Your task to perform on an android device: What is the news today? Image 0: 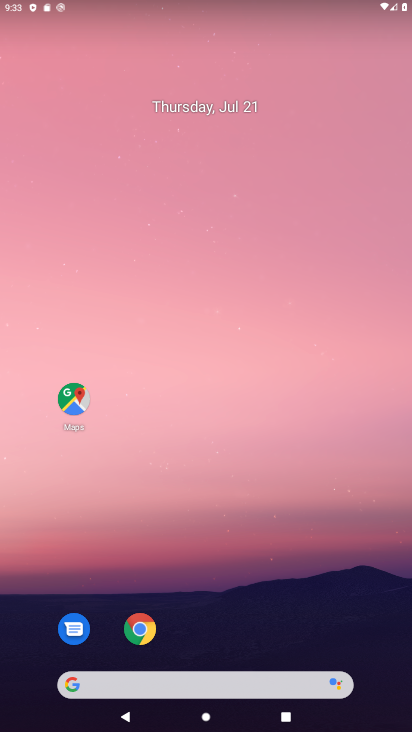
Step 0: click (109, 675)
Your task to perform on an android device: What is the news today? Image 1: 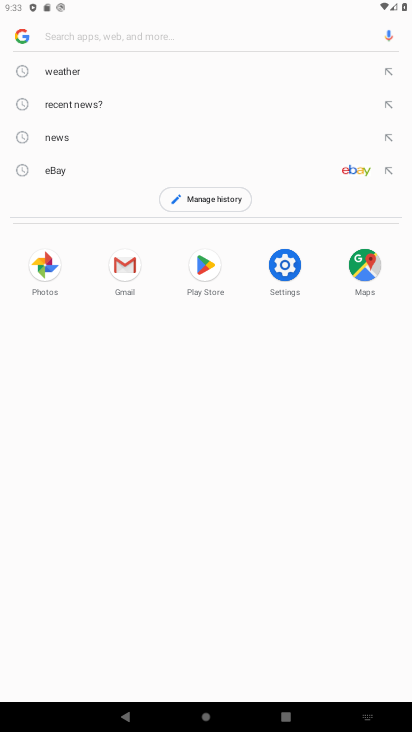
Step 1: click (25, 45)
Your task to perform on an android device: What is the news today? Image 2: 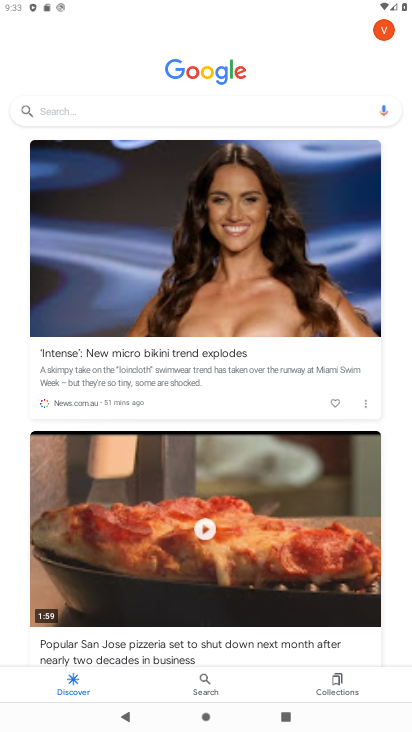
Step 2: task complete